Your task to perform on an android device: turn off improve location accuracy Image 0: 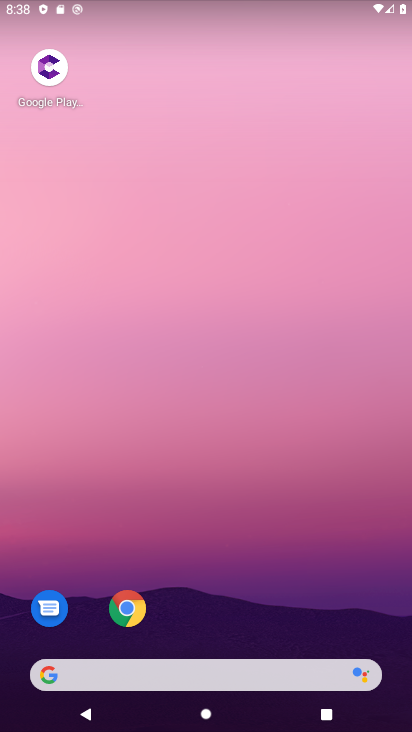
Step 0: drag from (196, 536) to (186, 174)
Your task to perform on an android device: turn off improve location accuracy Image 1: 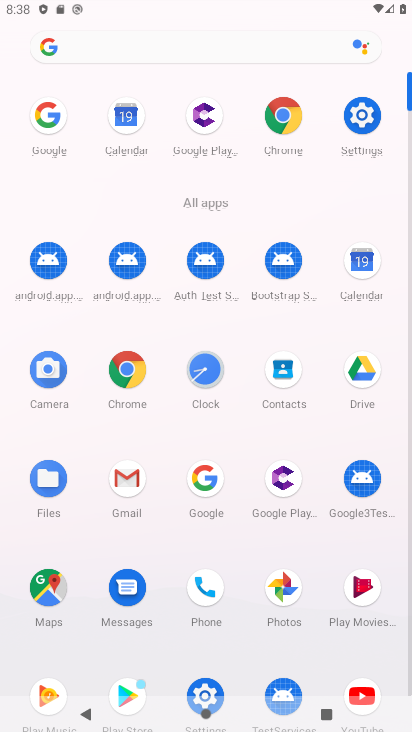
Step 1: click (365, 109)
Your task to perform on an android device: turn off improve location accuracy Image 2: 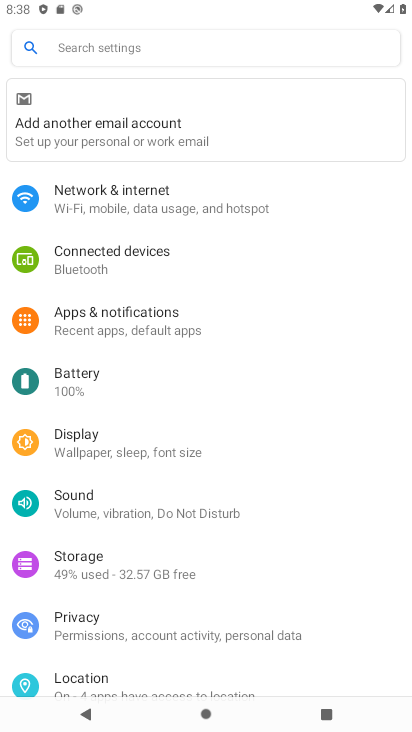
Step 2: click (102, 680)
Your task to perform on an android device: turn off improve location accuracy Image 3: 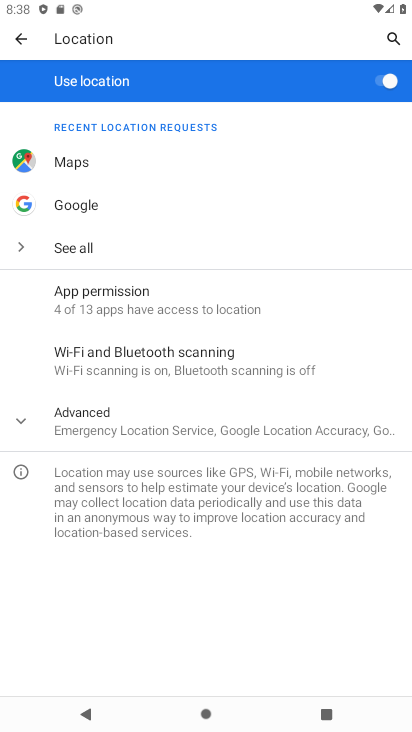
Step 3: click (107, 445)
Your task to perform on an android device: turn off improve location accuracy Image 4: 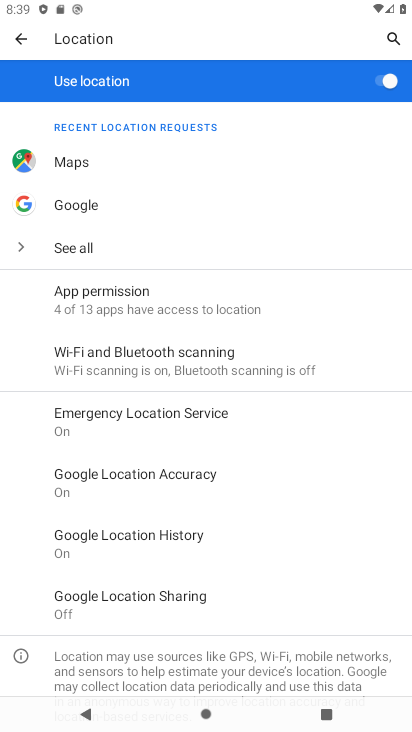
Step 4: click (186, 475)
Your task to perform on an android device: turn off improve location accuracy Image 5: 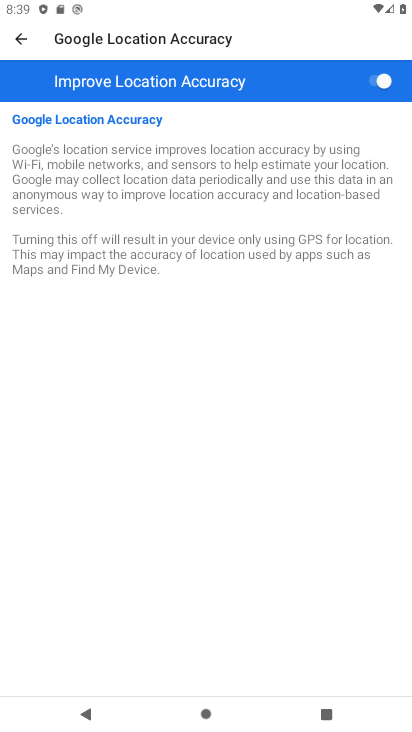
Step 5: click (368, 84)
Your task to perform on an android device: turn off improve location accuracy Image 6: 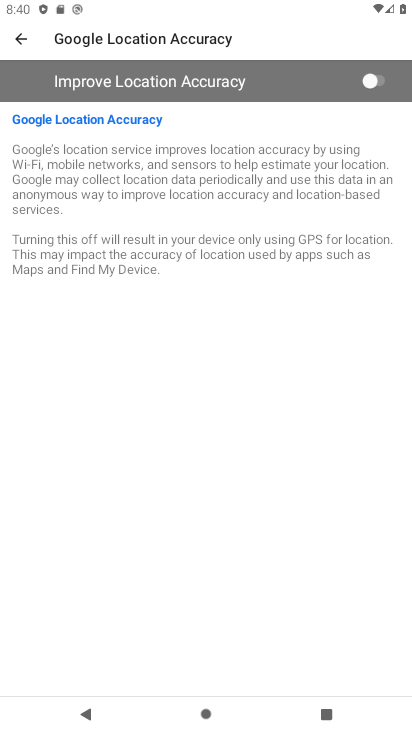
Step 6: task complete